Your task to perform on an android device: turn off location Image 0: 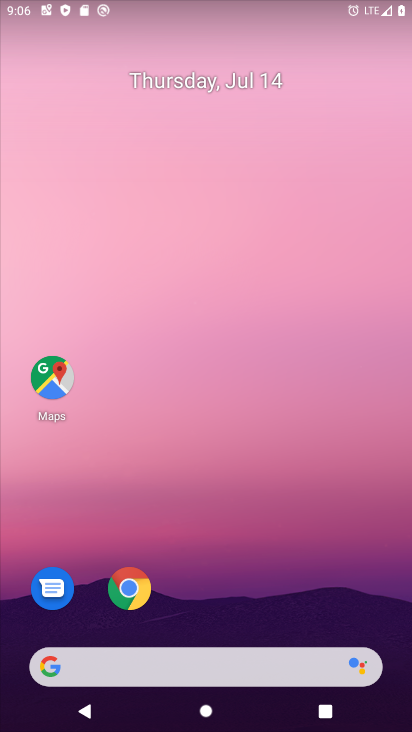
Step 0: drag from (260, 498) to (284, 317)
Your task to perform on an android device: turn off location Image 1: 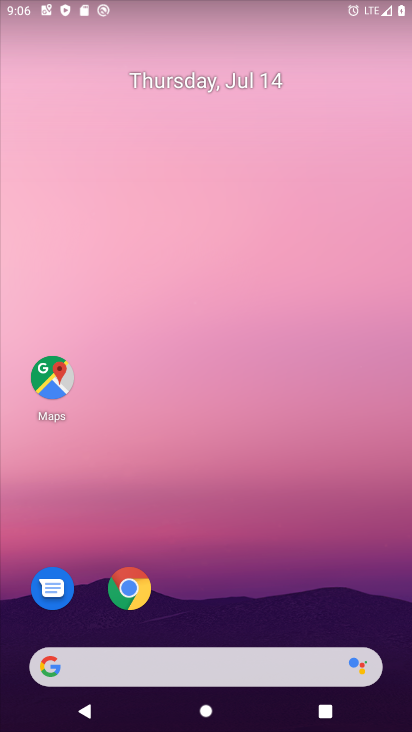
Step 1: drag from (270, 636) to (226, 72)
Your task to perform on an android device: turn off location Image 2: 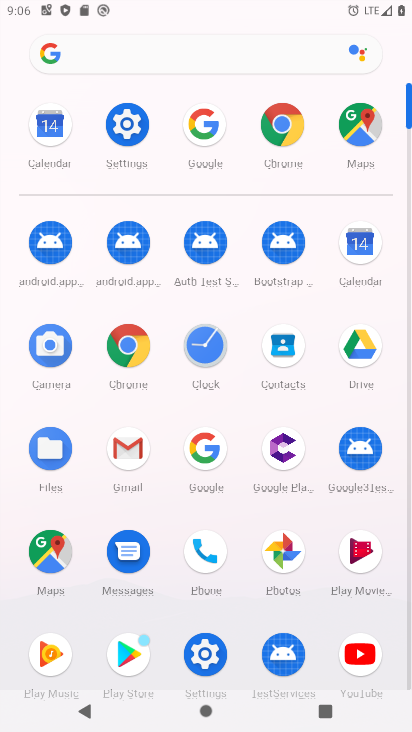
Step 2: click (126, 123)
Your task to perform on an android device: turn off location Image 3: 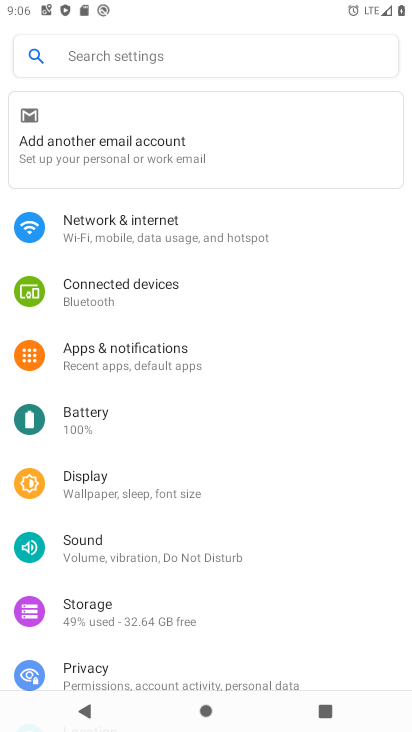
Step 3: drag from (128, 651) to (128, 349)
Your task to perform on an android device: turn off location Image 4: 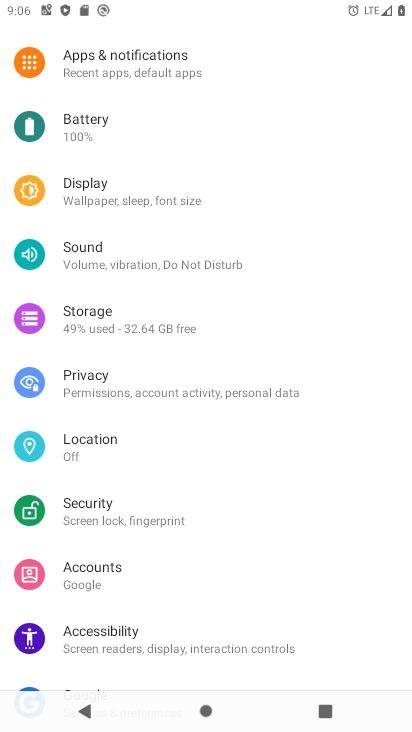
Step 4: click (96, 462)
Your task to perform on an android device: turn off location Image 5: 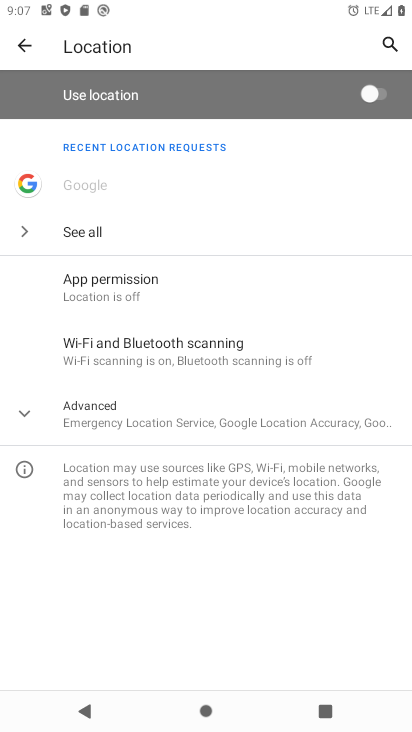
Step 5: task complete